Your task to perform on an android device: Do I have any events today? Image 0: 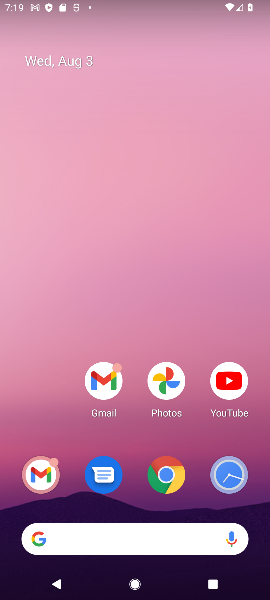
Step 0: drag from (150, 435) to (149, 184)
Your task to perform on an android device: Do I have any events today? Image 1: 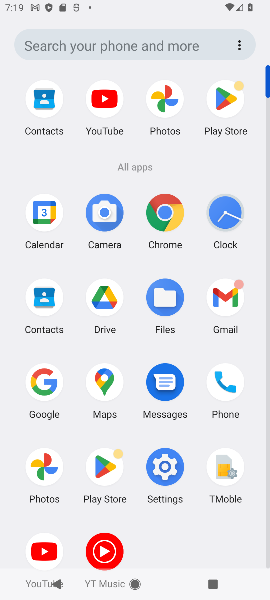
Step 1: click (45, 215)
Your task to perform on an android device: Do I have any events today? Image 2: 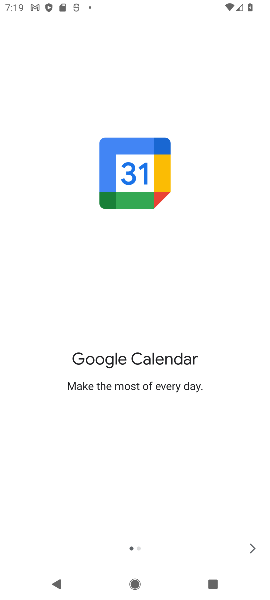
Step 2: click (248, 544)
Your task to perform on an android device: Do I have any events today? Image 3: 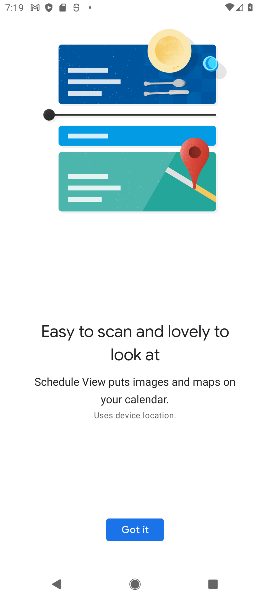
Step 3: click (248, 544)
Your task to perform on an android device: Do I have any events today? Image 4: 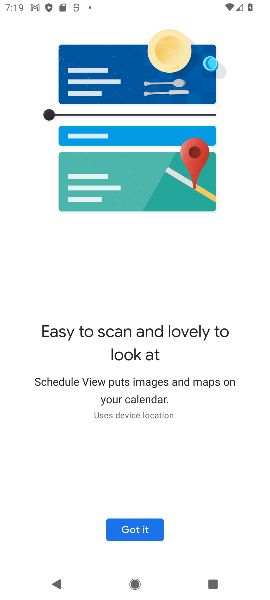
Step 4: click (143, 532)
Your task to perform on an android device: Do I have any events today? Image 5: 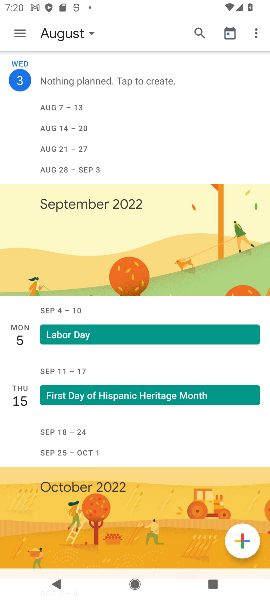
Step 5: press home button
Your task to perform on an android device: Do I have any events today? Image 6: 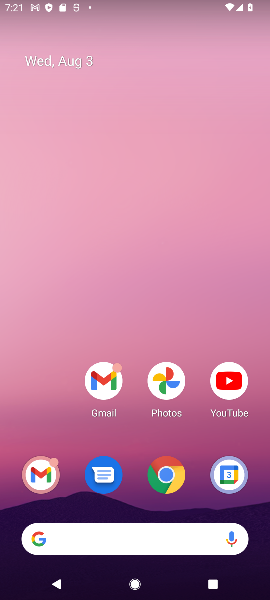
Step 6: drag from (169, 348) to (136, 98)
Your task to perform on an android device: Do I have any events today? Image 7: 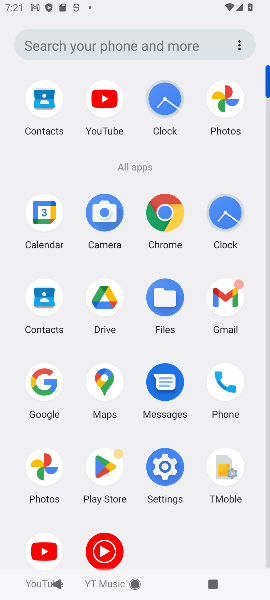
Step 7: click (46, 219)
Your task to perform on an android device: Do I have any events today? Image 8: 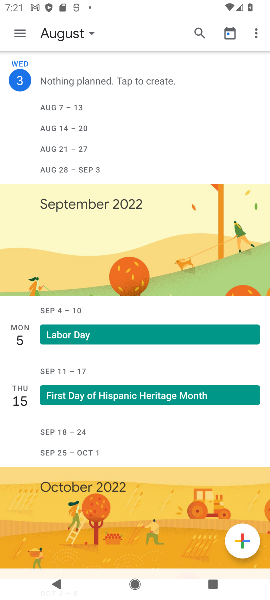
Step 8: click (21, 30)
Your task to perform on an android device: Do I have any events today? Image 9: 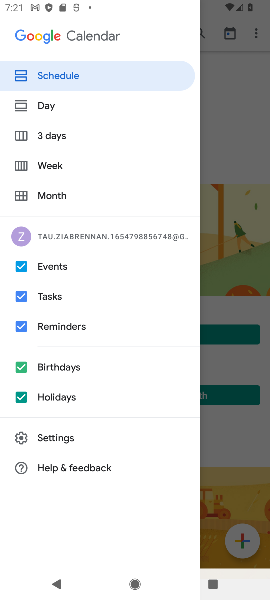
Step 9: click (54, 108)
Your task to perform on an android device: Do I have any events today? Image 10: 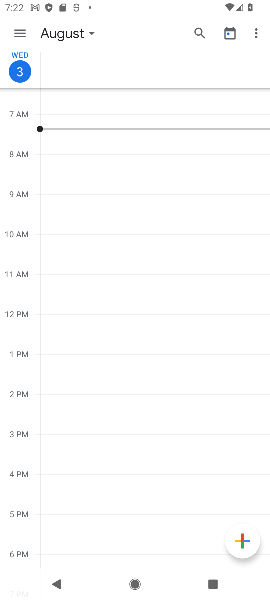
Step 10: task complete